Your task to perform on an android device: toggle priority inbox in the gmail app Image 0: 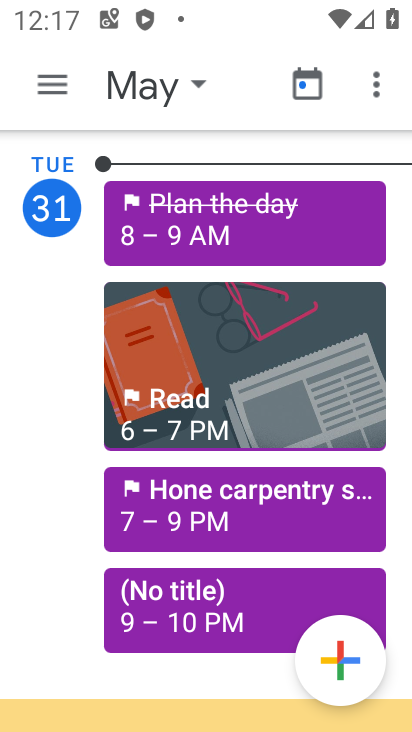
Step 0: press home button
Your task to perform on an android device: toggle priority inbox in the gmail app Image 1: 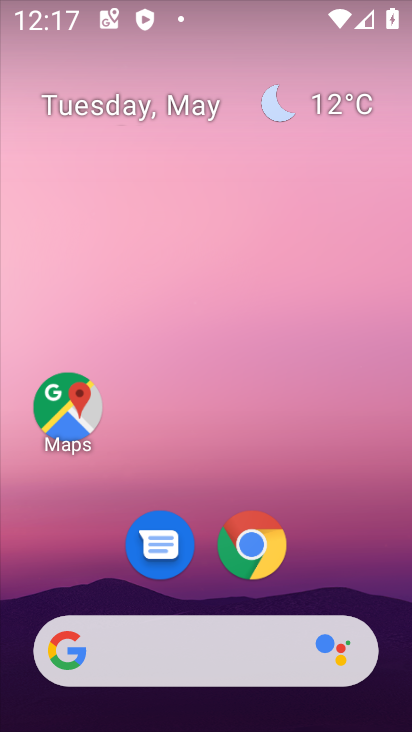
Step 1: drag from (352, 584) to (292, 149)
Your task to perform on an android device: toggle priority inbox in the gmail app Image 2: 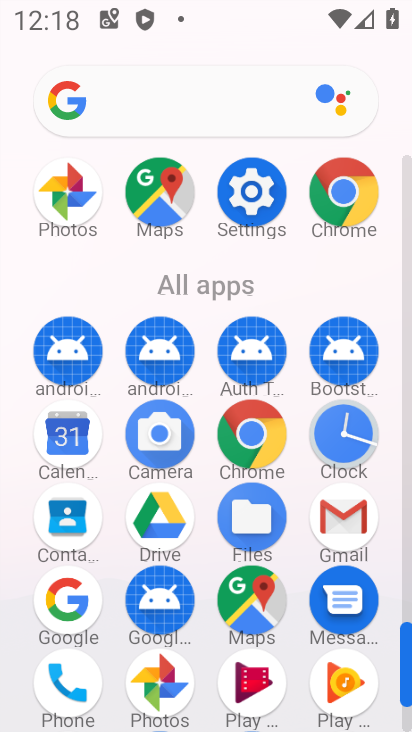
Step 2: click (327, 527)
Your task to perform on an android device: toggle priority inbox in the gmail app Image 3: 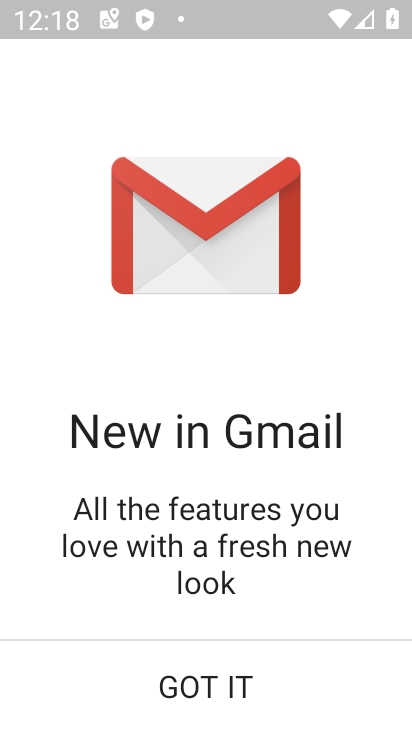
Step 3: click (233, 648)
Your task to perform on an android device: toggle priority inbox in the gmail app Image 4: 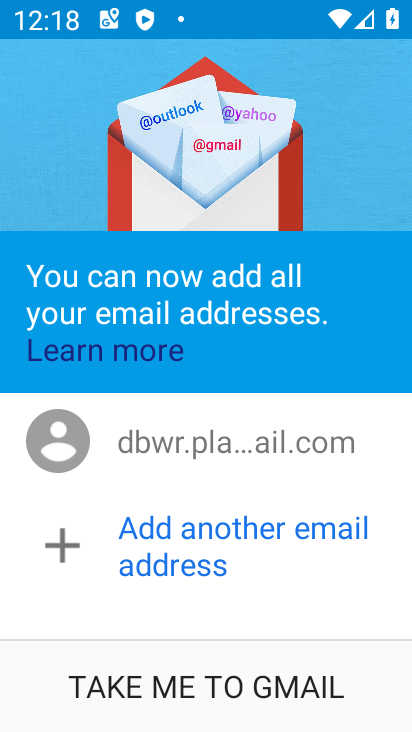
Step 4: click (161, 656)
Your task to perform on an android device: toggle priority inbox in the gmail app Image 5: 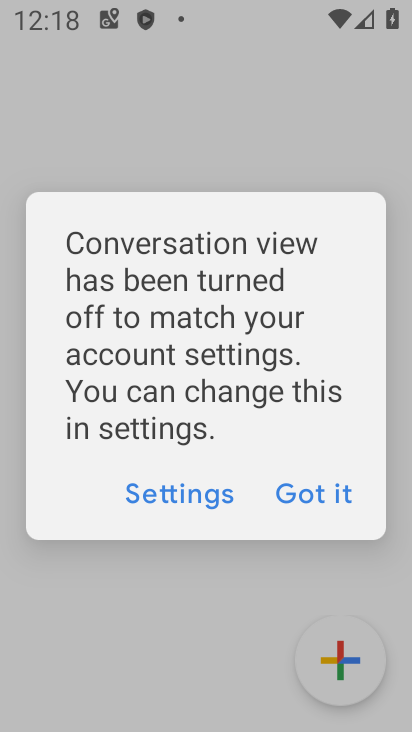
Step 5: drag from (162, 656) to (157, 475)
Your task to perform on an android device: toggle priority inbox in the gmail app Image 6: 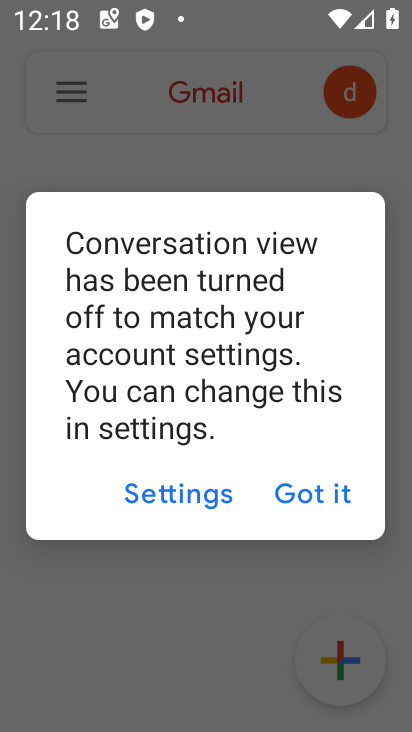
Step 6: click (297, 496)
Your task to perform on an android device: toggle priority inbox in the gmail app Image 7: 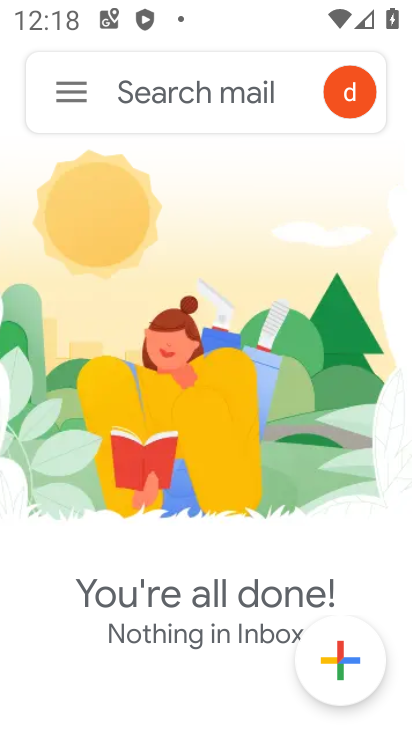
Step 7: click (68, 89)
Your task to perform on an android device: toggle priority inbox in the gmail app Image 8: 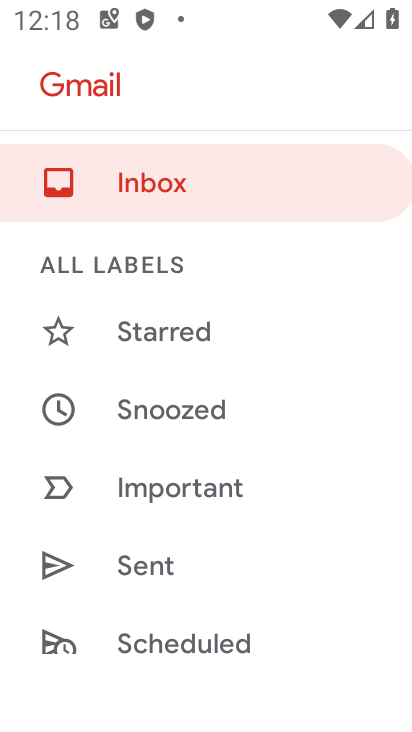
Step 8: drag from (199, 610) to (170, 311)
Your task to perform on an android device: toggle priority inbox in the gmail app Image 9: 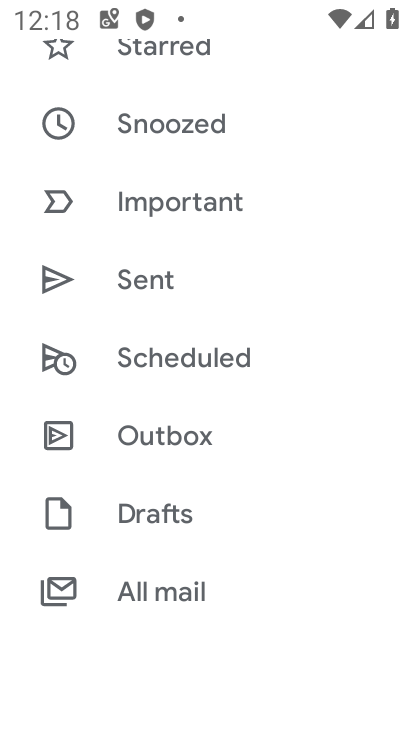
Step 9: drag from (187, 546) to (175, 189)
Your task to perform on an android device: toggle priority inbox in the gmail app Image 10: 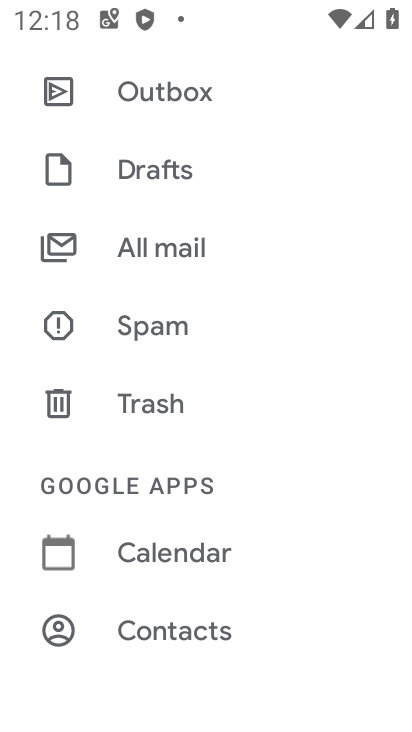
Step 10: drag from (185, 630) to (168, 358)
Your task to perform on an android device: toggle priority inbox in the gmail app Image 11: 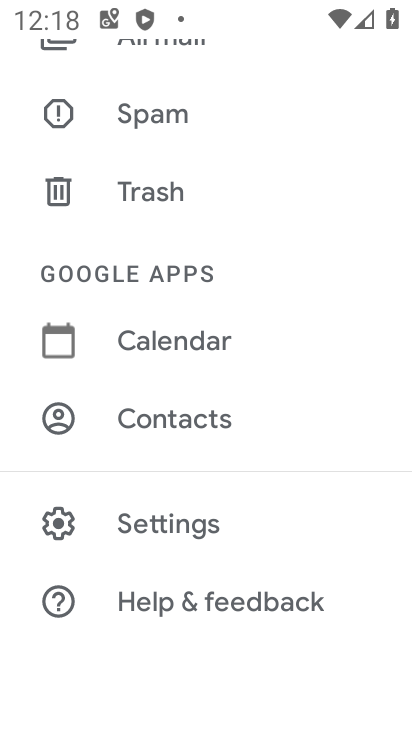
Step 11: click (178, 538)
Your task to perform on an android device: toggle priority inbox in the gmail app Image 12: 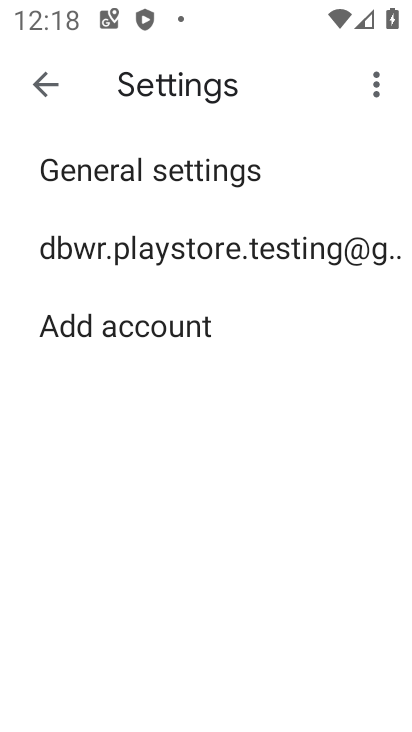
Step 12: click (200, 247)
Your task to perform on an android device: toggle priority inbox in the gmail app Image 13: 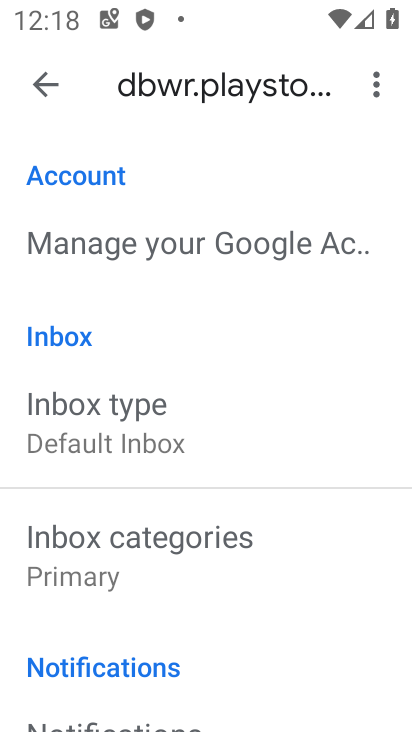
Step 13: click (191, 445)
Your task to perform on an android device: toggle priority inbox in the gmail app Image 14: 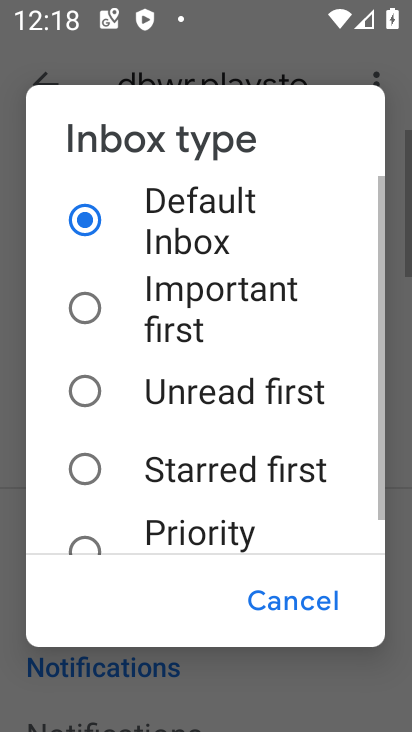
Step 14: click (174, 534)
Your task to perform on an android device: toggle priority inbox in the gmail app Image 15: 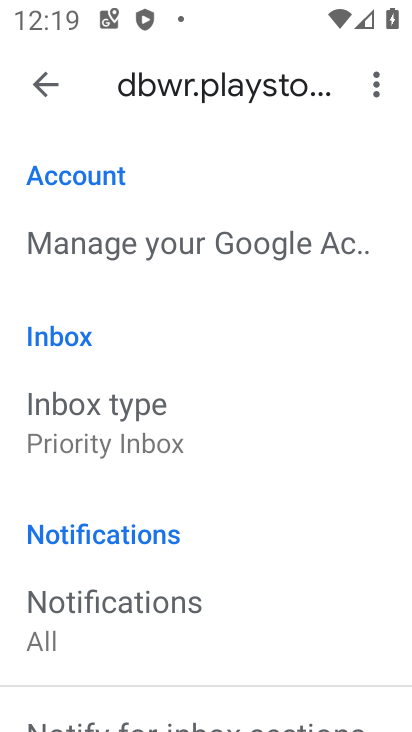
Step 15: task complete